Your task to perform on an android device: remove spam from my inbox in the gmail app Image 0: 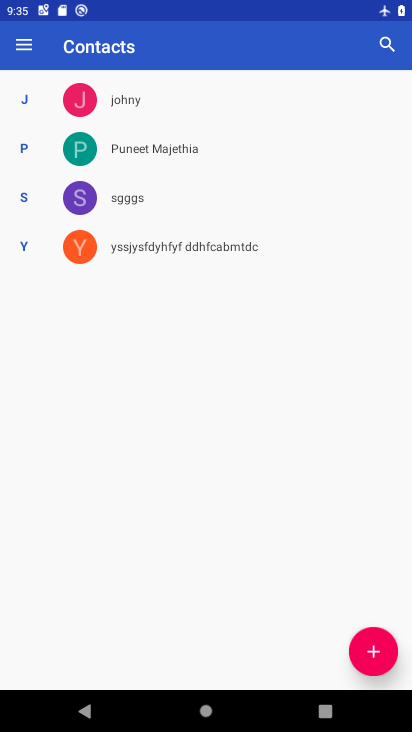
Step 0: press home button
Your task to perform on an android device: remove spam from my inbox in the gmail app Image 1: 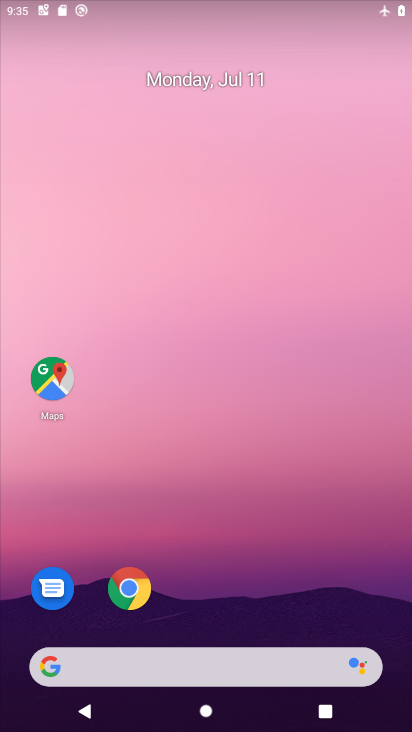
Step 1: drag from (224, 598) to (210, 231)
Your task to perform on an android device: remove spam from my inbox in the gmail app Image 2: 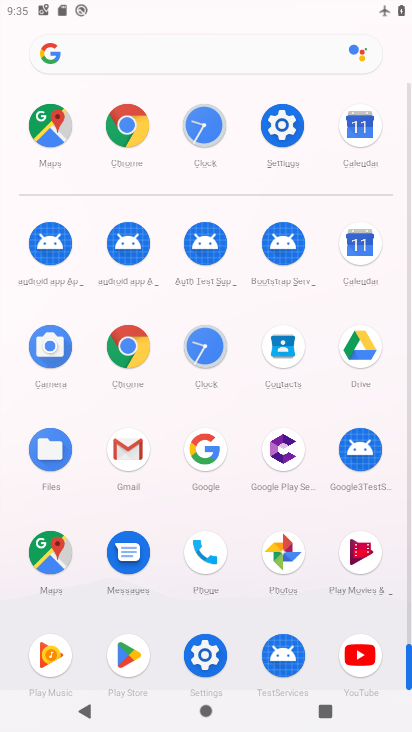
Step 2: click (139, 441)
Your task to perform on an android device: remove spam from my inbox in the gmail app Image 3: 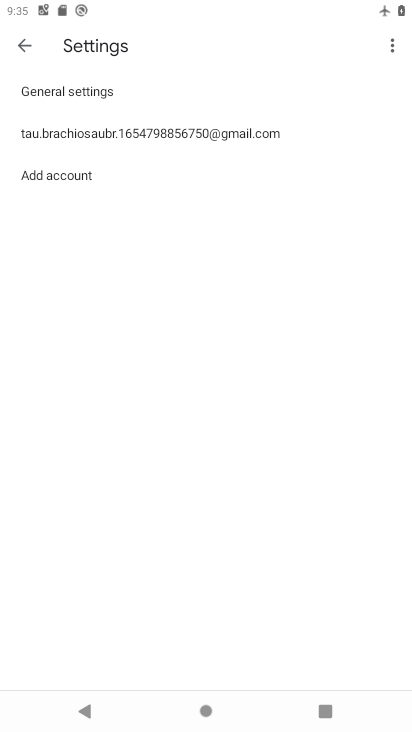
Step 3: click (92, 120)
Your task to perform on an android device: remove spam from my inbox in the gmail app Image 4: 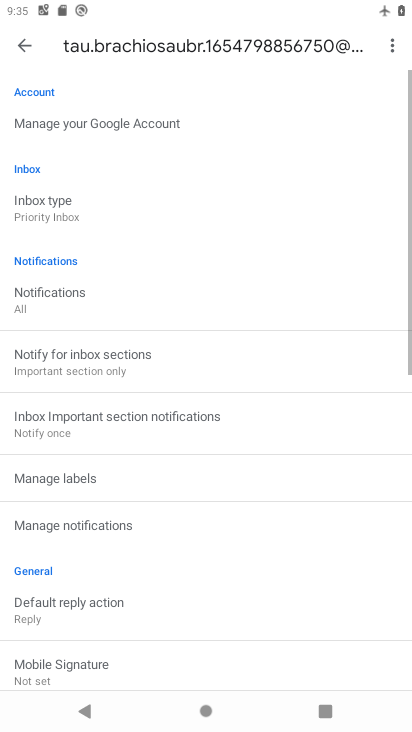
Step 4: click (18, 54)
Your task to perform on an android device: remove spam from my inbox in the gmail app Image 5: 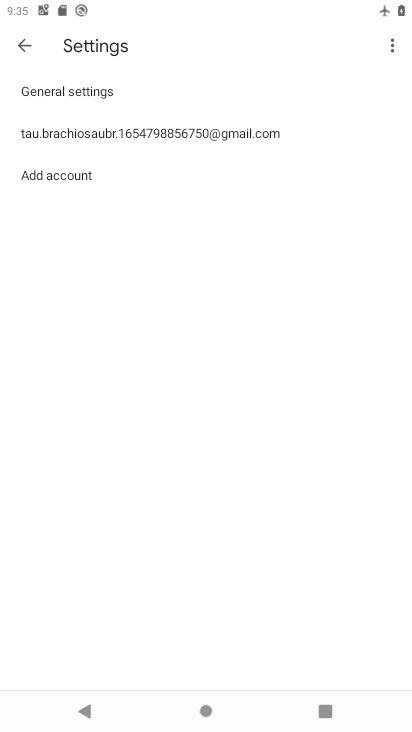
Step 5: click (18, 54)
Your task to perform on an android device: remove spam from my inbox in the gmail app Image 6: 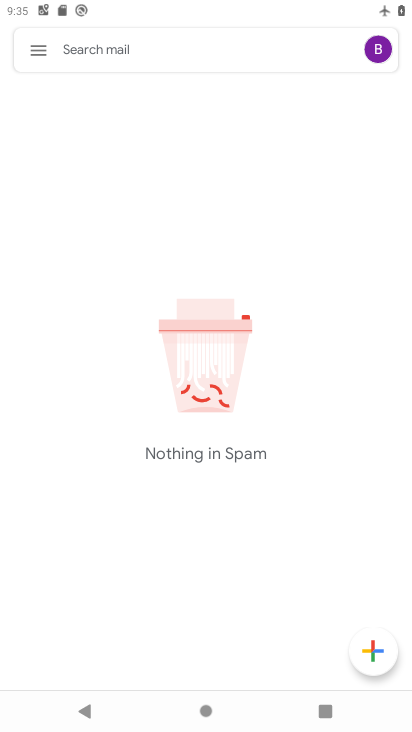
Step 6: click (34, 51)
Your task to perform on an android device: remove spam from my inbox in the gmail app Image 7: 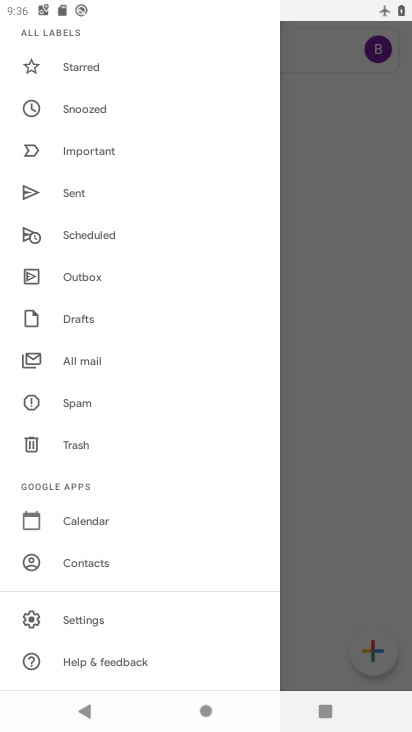
Step 7: click (80, 396)
Your task to perform on an android device: remove spam from my inbox in the gmail app Image 8: 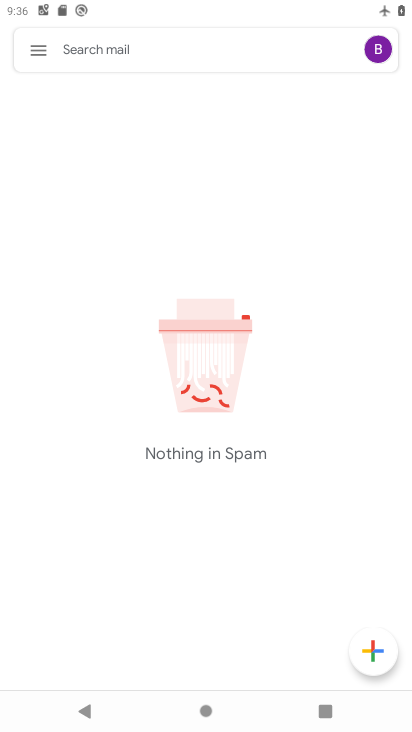
Step 8: task complete